Your task to perform on an android device: toggle translation in the chrome app Image 0: 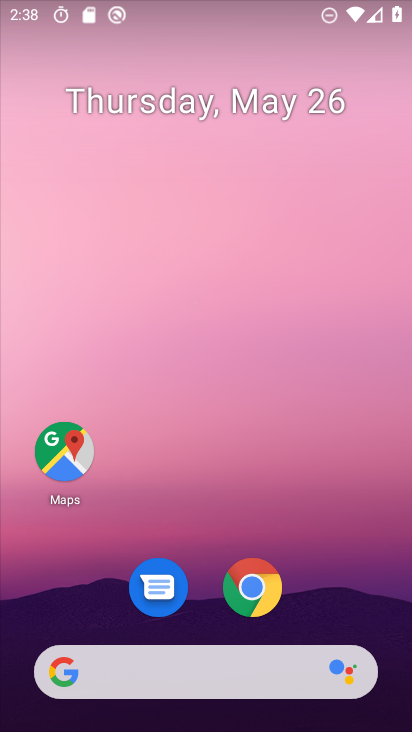
Step 0: click (261, 579)
Your task to perform on an android device: toggle translation in the chrome app Image 1: 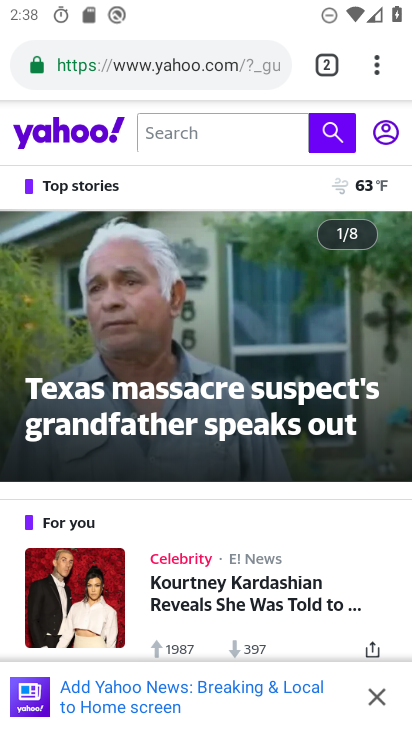
Step 1: drag from (375, 54) to (200, 646)
Your task to perform on an android device: toggle translation in the chrome app Image 2: 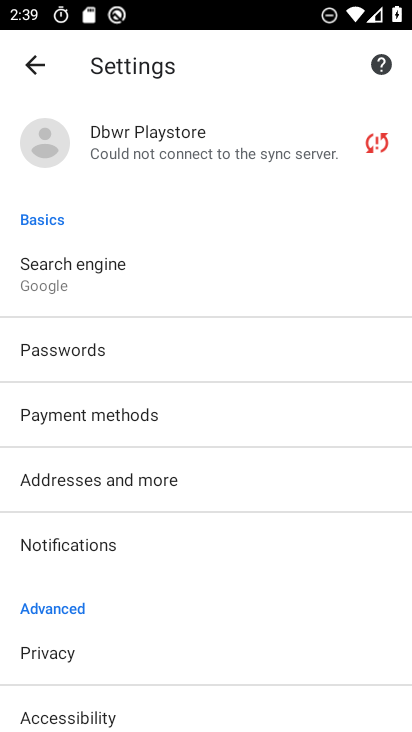
Step 2: drag from (210, 579) to (202, 98)
Your task to perform on an android device: toggle translation in the chrome app Image 3: 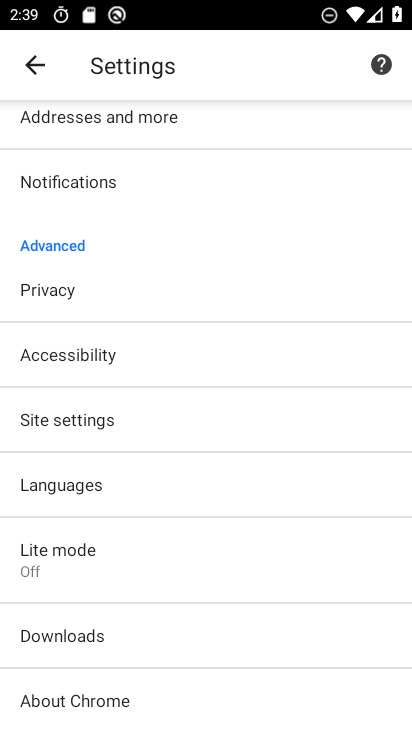
Step 3: drag from (195, 614) to (227, 238)
Your task to perform on an android device: toggle translation in the chrome app Image 4: 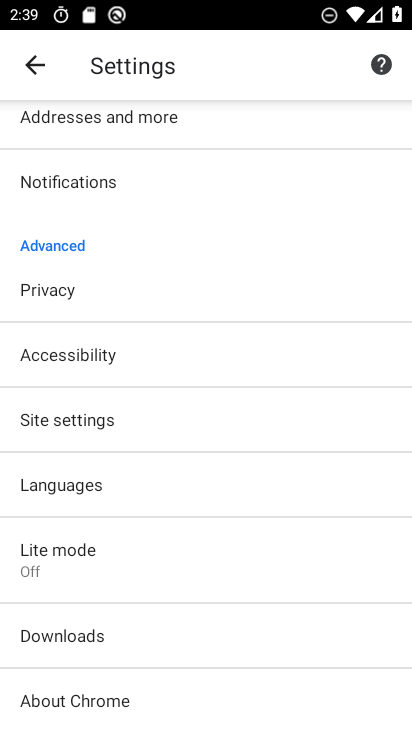
Step 4: click (106, 494)
Your task to perform on an android device: toggle translation in the chrome app Image 5: 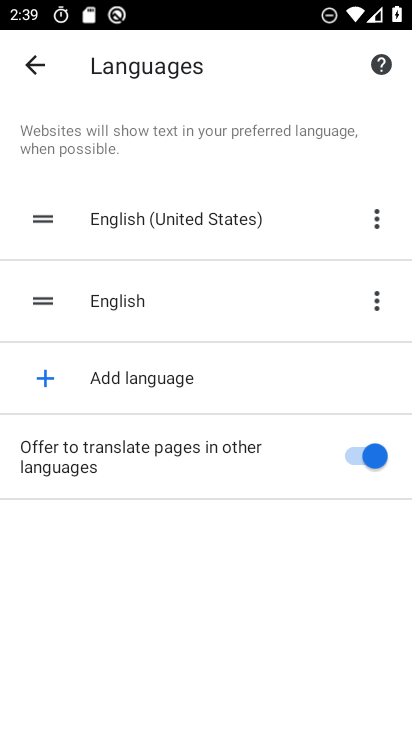
Step 5: click (370, 447)
Your task to perform on an android device: toggle translation in the chrome app Image 6: 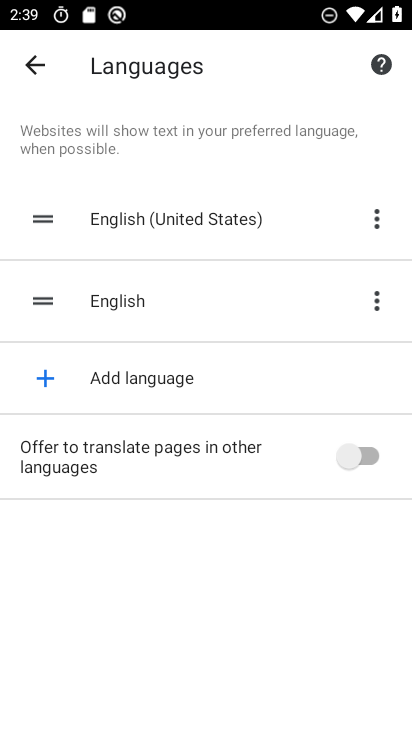
Step 6: task complete